Your task to perform on an android device: check storage Image 0: 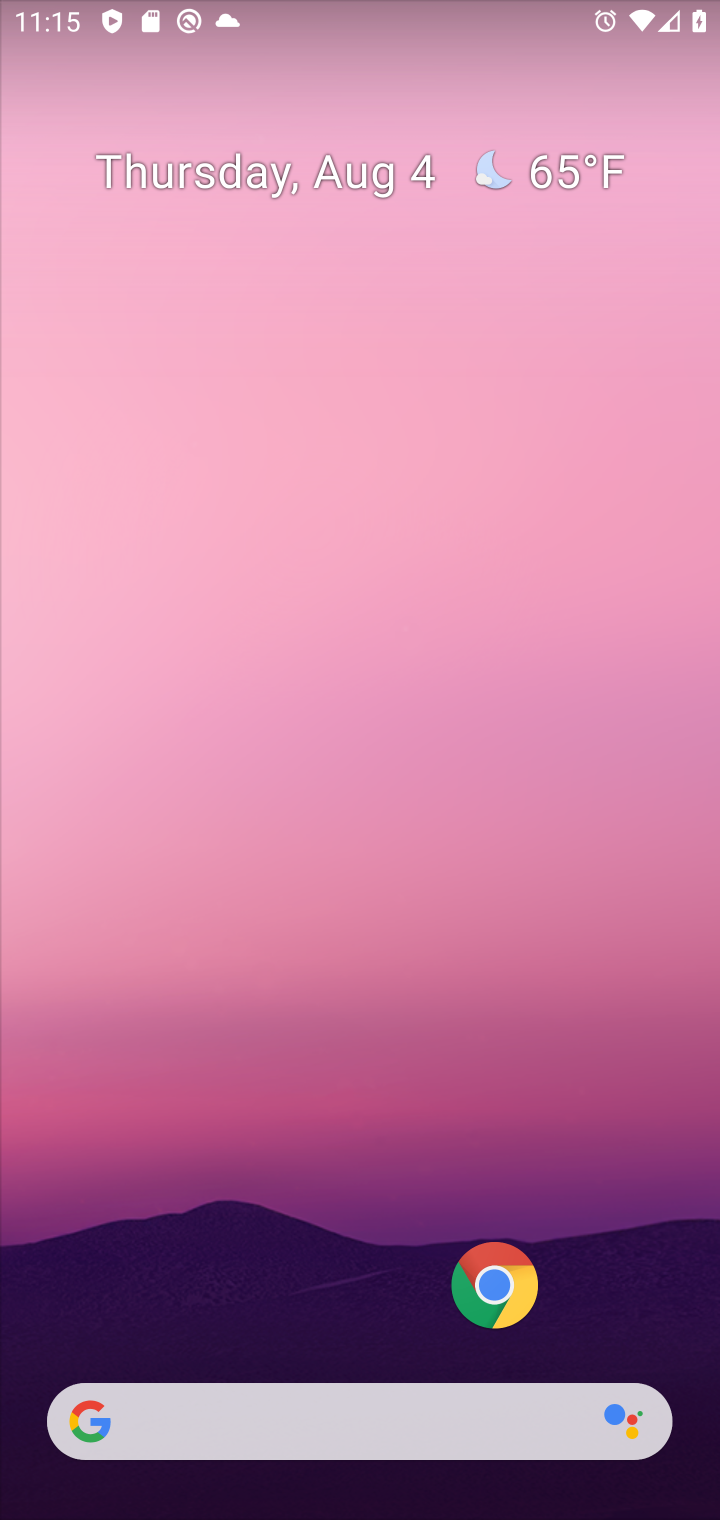
Step 0: press home button
Your task to perform on an android device: check storage Image 1: 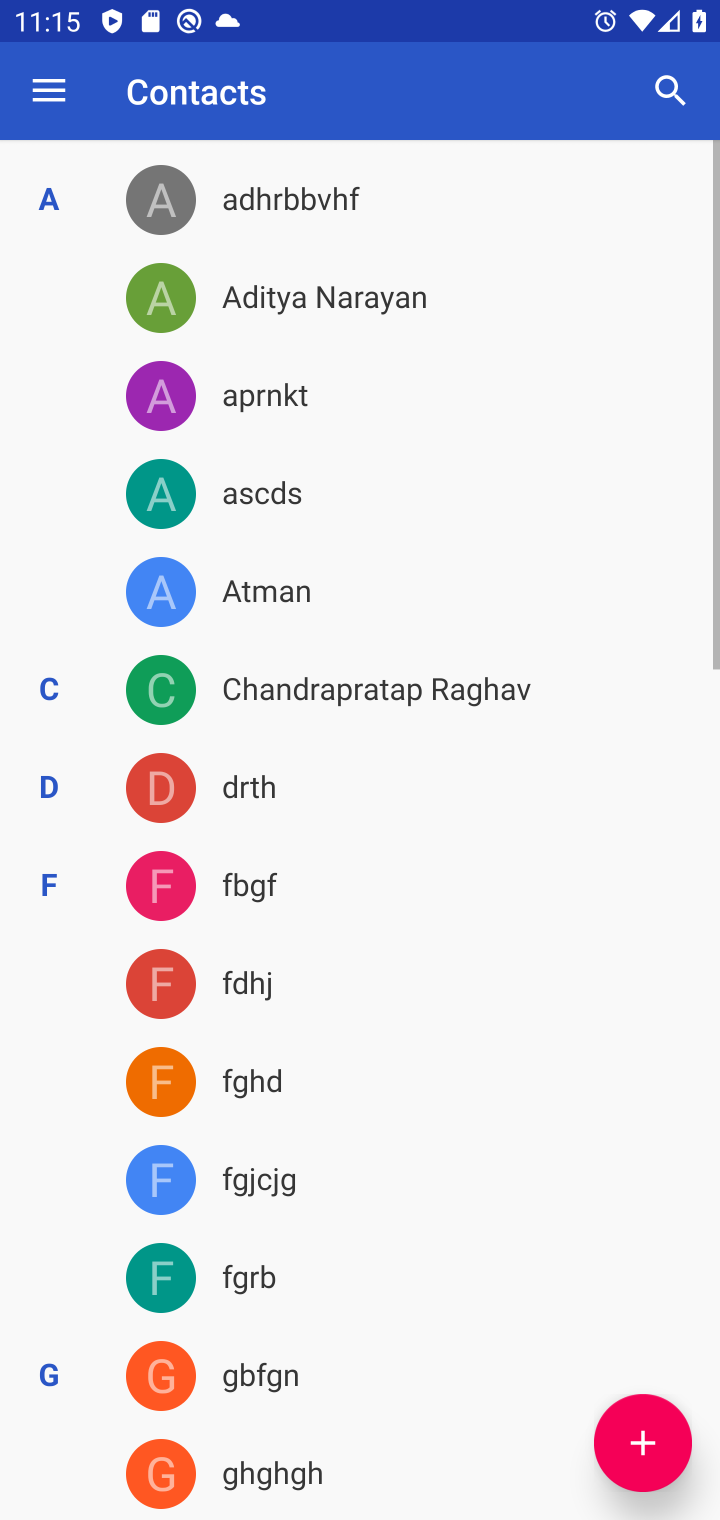
Step 1: click (334, 283)
Your task to perform on an android device: check storage Image 2: 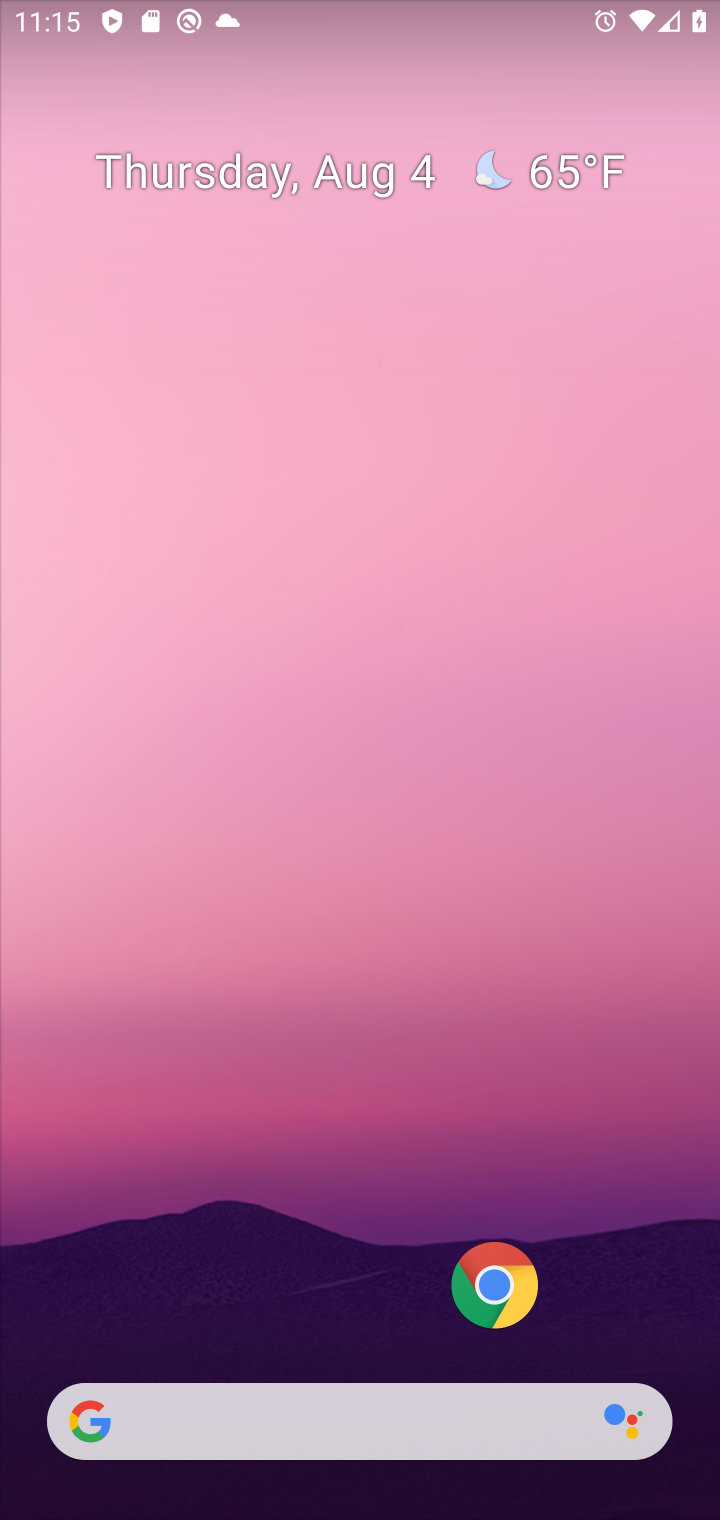
Step 2: drag from (402, 1314) to (429, 148)
Your task to perform on an android device: check storage Image 3: 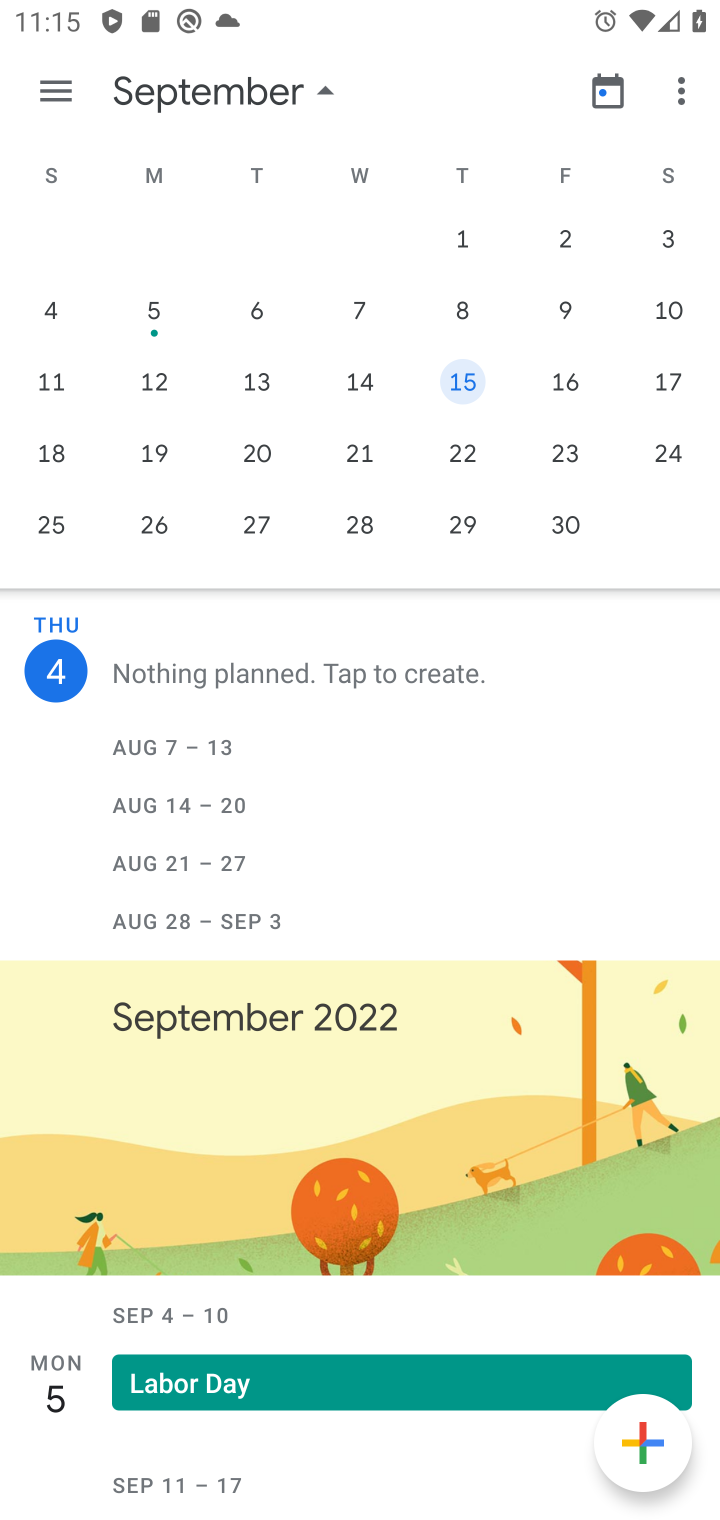
Step 3: press home button
Your task to perform on an android device: check storage Image 4: 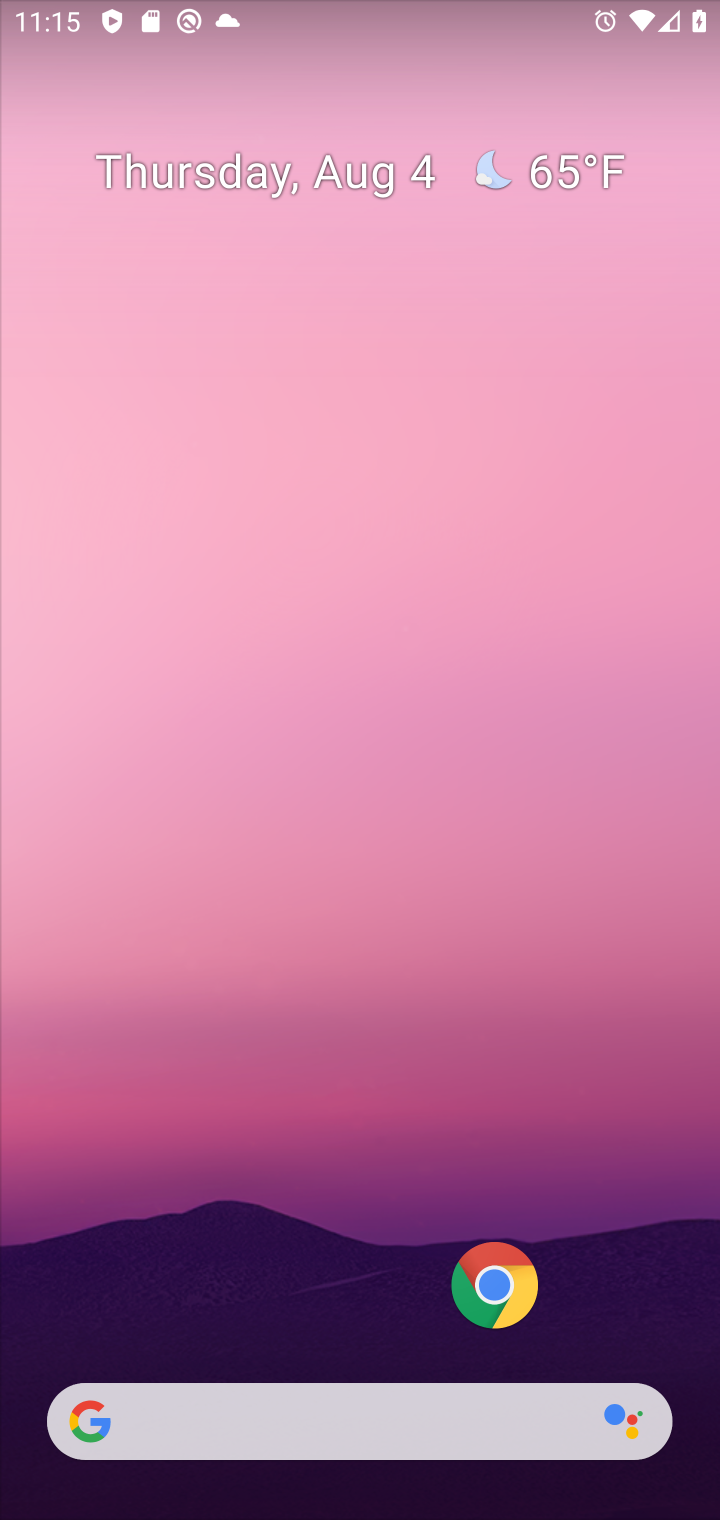
Step 4: drag from (208, 1307) to (318, 146)
Your task to perform on an android device: check storage Image 5: 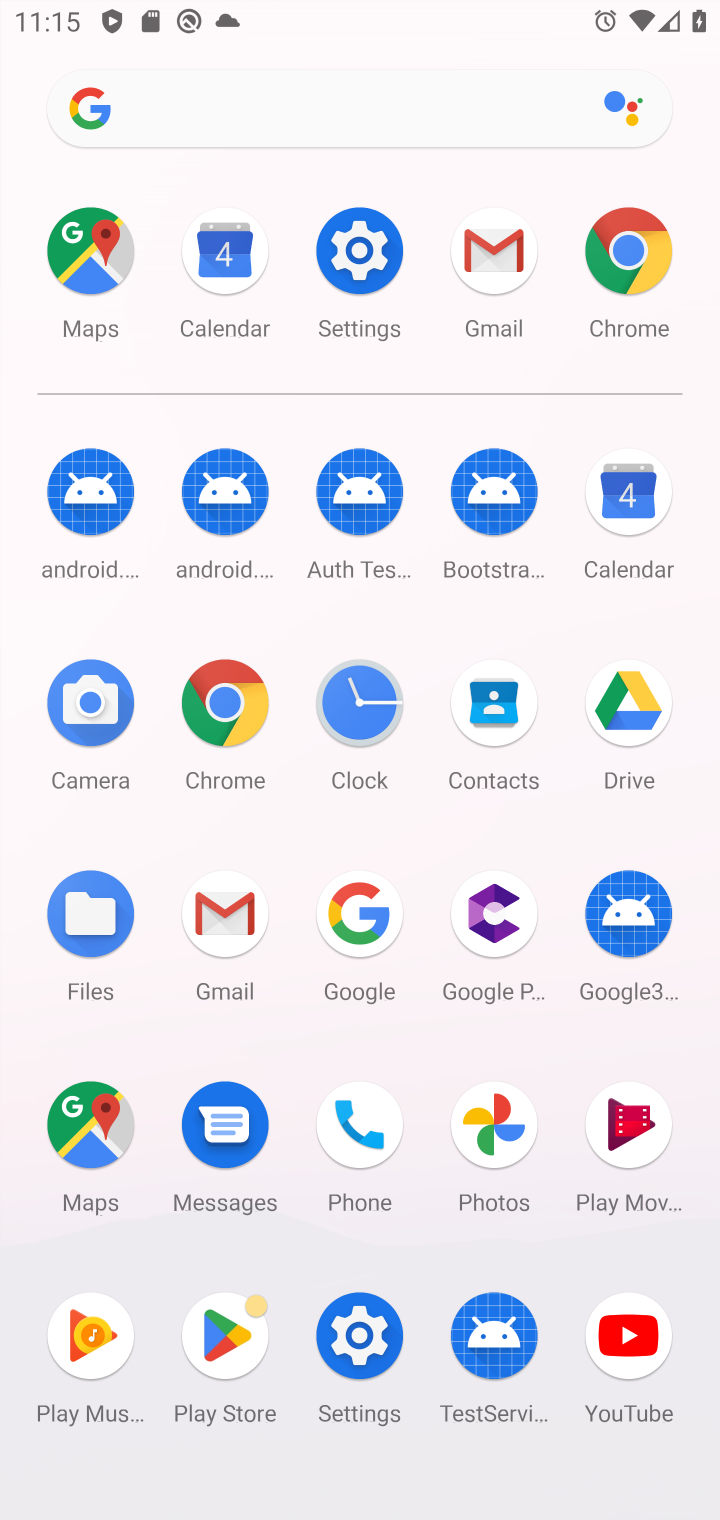
Step 5: click (354, 234)
Your task to perform on an android device: check storage Image 6: 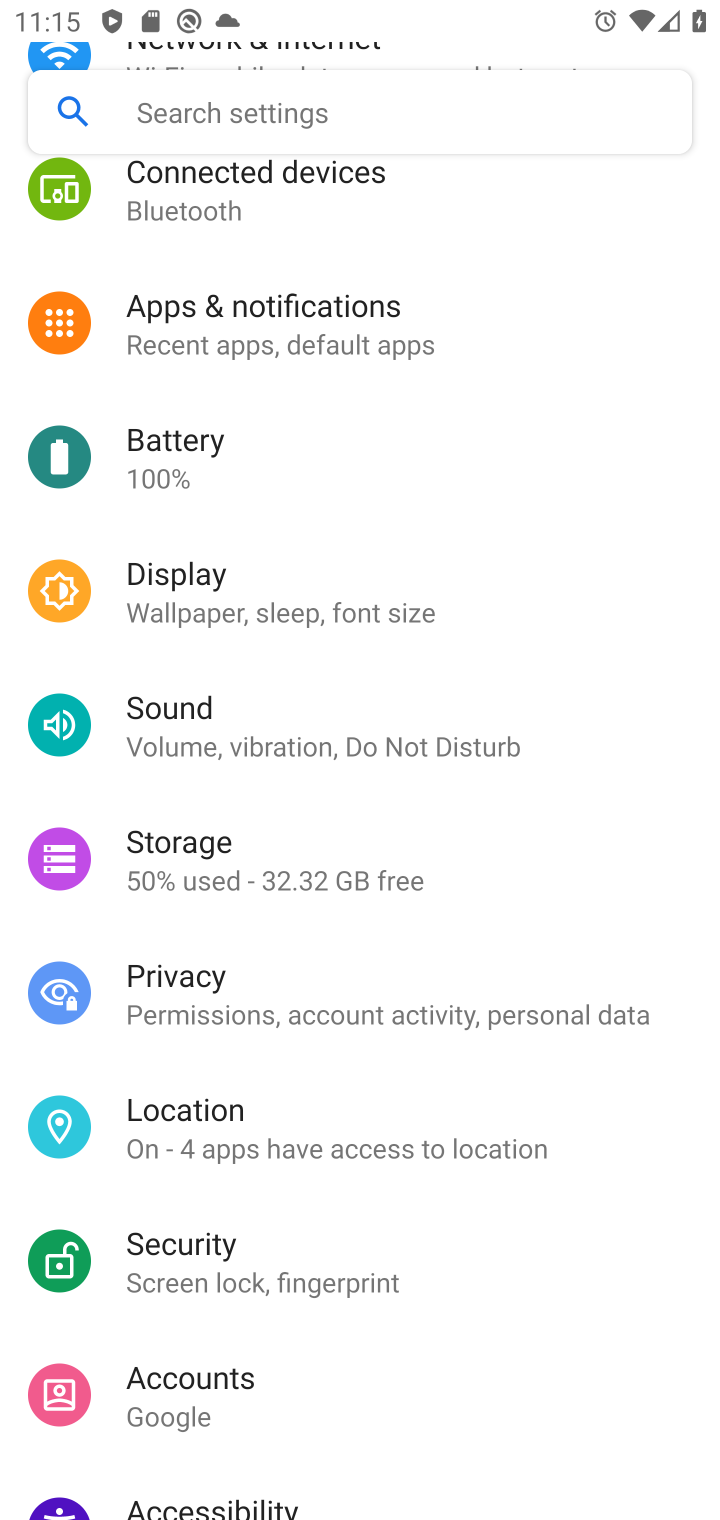
Step 6: click (275, 853)
Your task to perform on an android device: check storage Image 7: 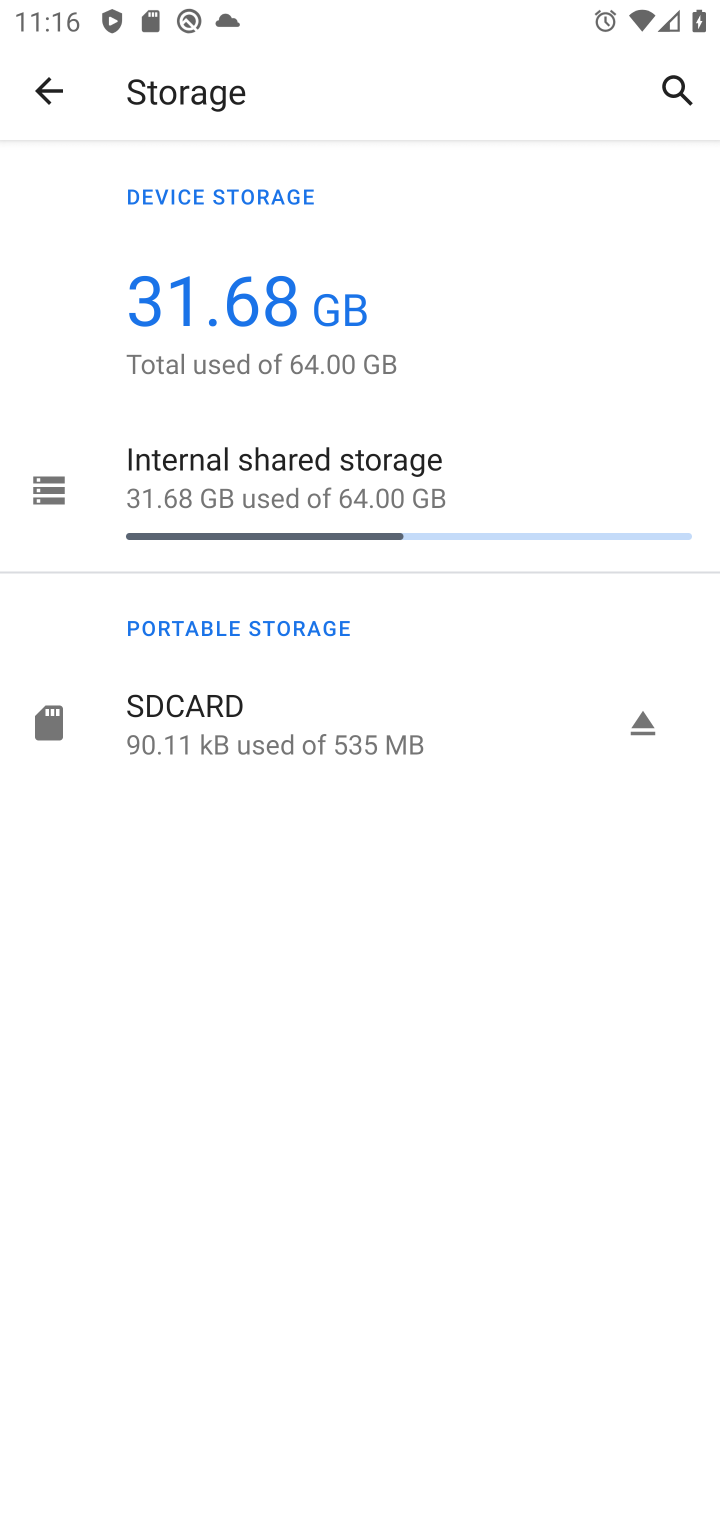
Step 7: task complete